Your task to perform on an android device: turn on airplane mode Image 0: 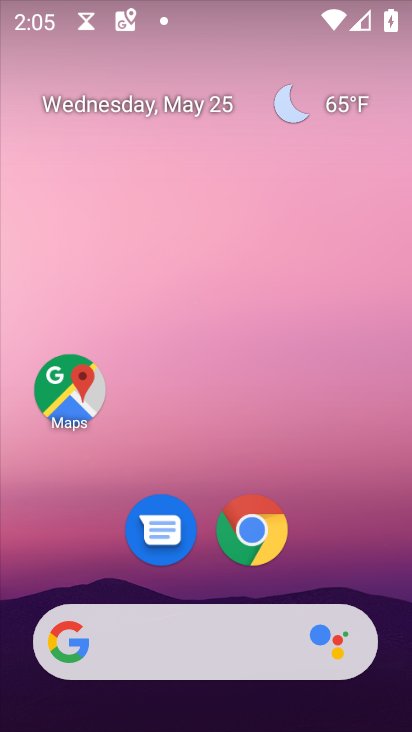
Step 0: drag from (275, 535) to (269, 282)
Your task to perform on an android device: turn on airplane mode Image 1: 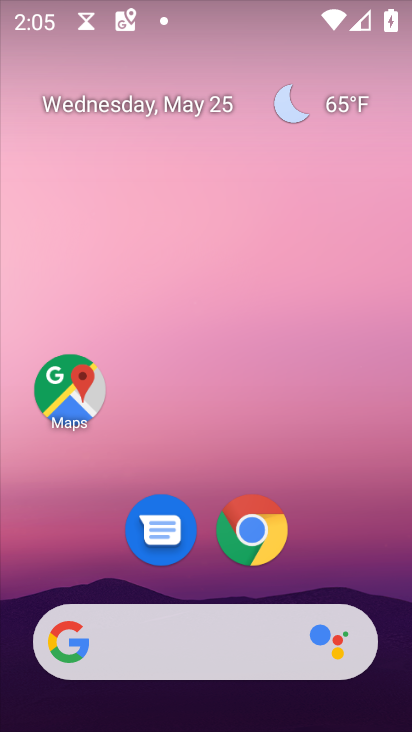
Step 1: drag from (332, 577) to (275, 278)
Your task to perform on an android device: turn on airplane mode Image 2: 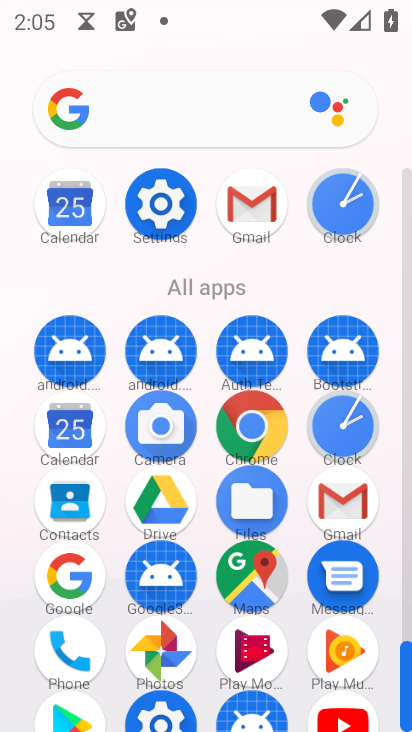
Step 2: click (141, 204)
Your task to perform on an android device: turn on airplane mode Image 3: 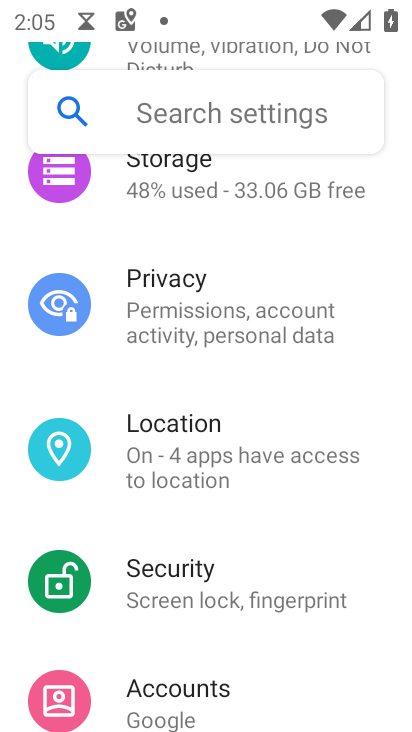
Step 3: drag from (238, 188) to (243, 449)
Your task to perform on an android device: turn on airplane mode Image 4: 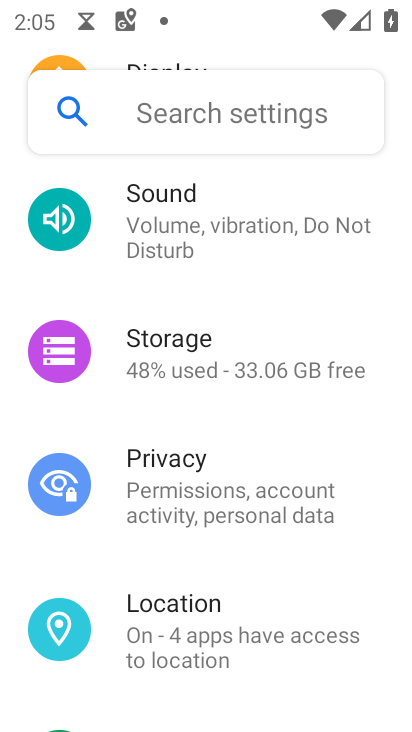
Step 4: drag from (223, 257) to (241, 632)
Your task to perform on an android device: turn on airplane mode Image 5: 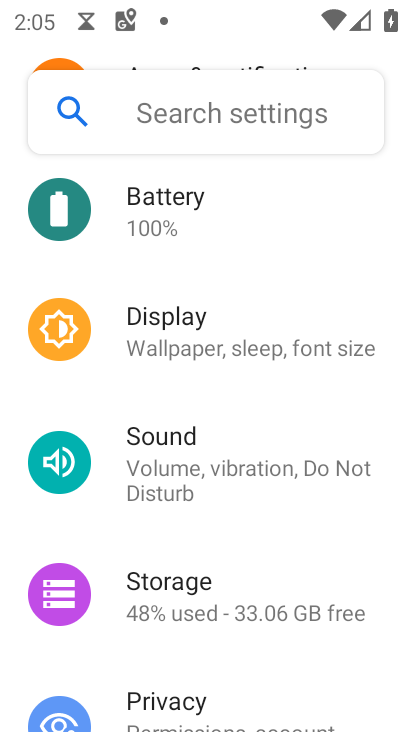
Step 5: drag from (212, 227) to (203, 561)
Your task to perform on an android device: turn on airplane mode Image 6: 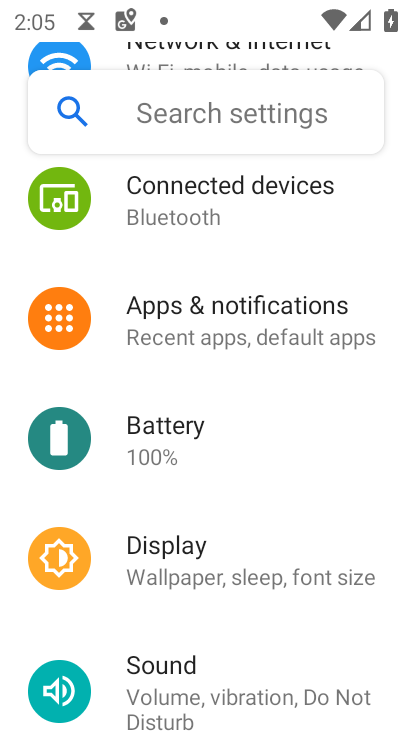
Step 6: drag from (229, 228) to (179, 628)
Your task to perform on an android device: turn on airplane mode Image 7: 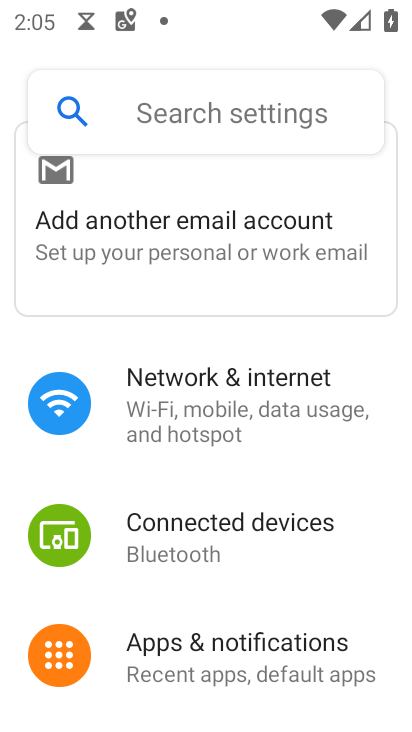
Step 7: click (232, 385)
Your task to perform on an android device: turn on airplane mode Image 8: 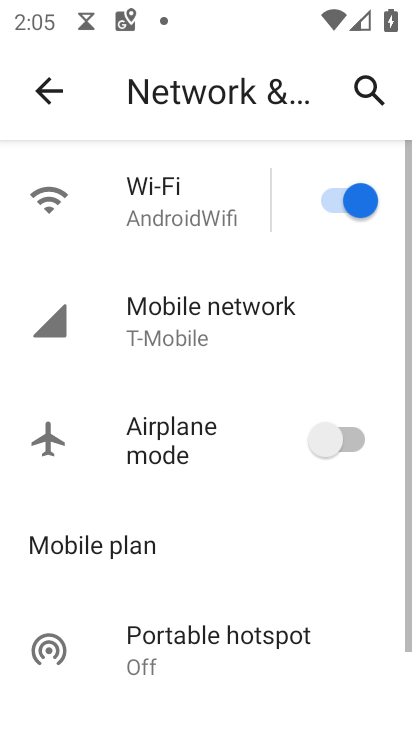
Step 8: click (335, 432)
Your task to perform on an android device: turn on airplane mode Image 9: 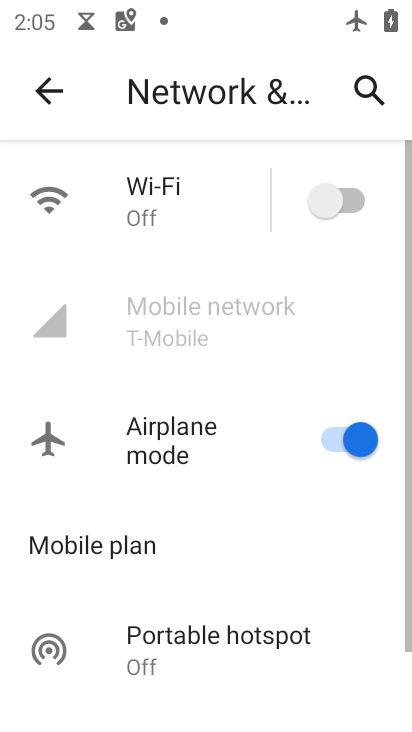
Step 9: task complete